Your task to perform on an android device: turn notification dots on Image 0: 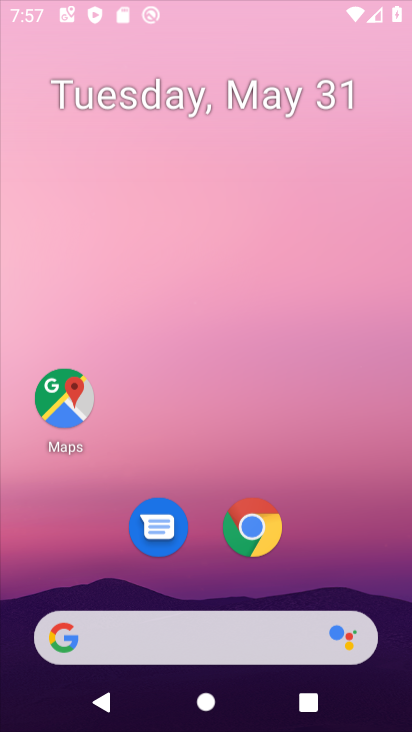
Step 0: click (238, 131)
Your task to perform on an android device: turn notification dots on Image 1: 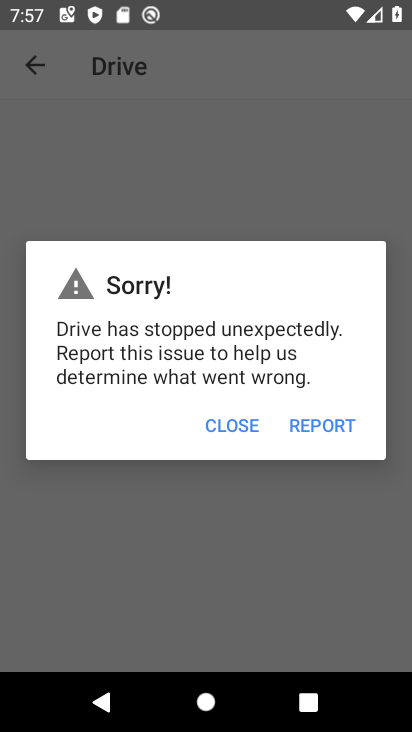
Step 1: press home button
Your task to perform on an android device: turn notification dots on Image 2: 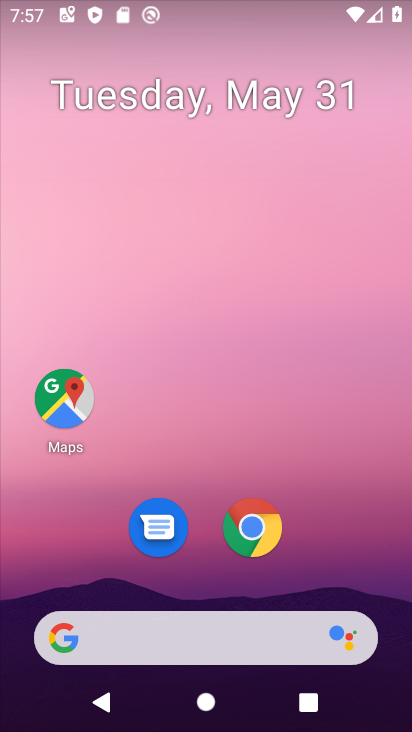
Step 2: drag from (335, 475) to (262, 44)
Your task to perform on an android device: turn notification dots on Image 3: 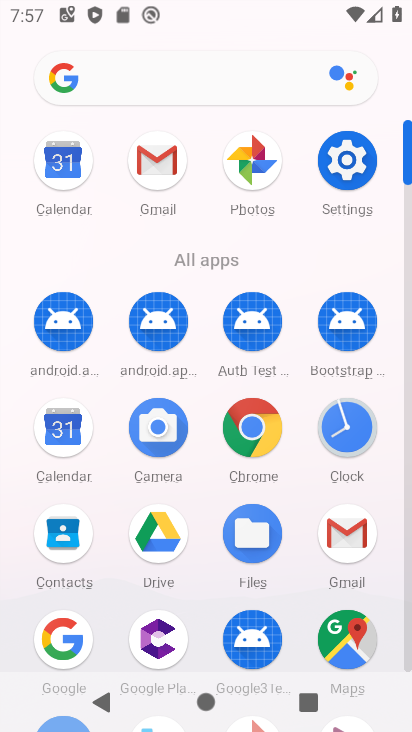
Step 3: click (339, 159)
Your task to perform on an android device: turn notification dots on Image 4: 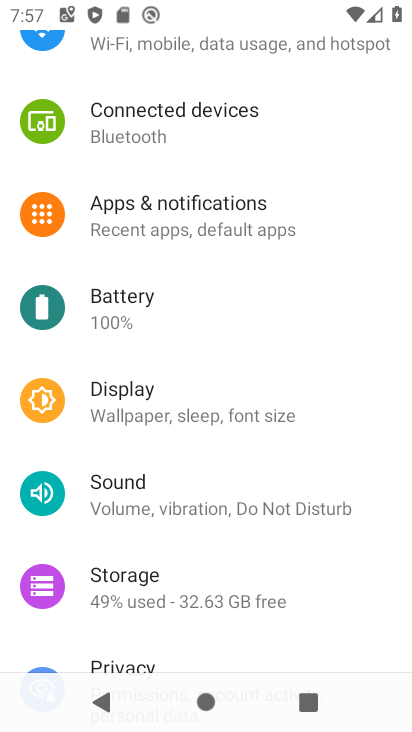
Step 4: click (180, 206)
Your task to perform on an android device: turn notification dots on Image 5: 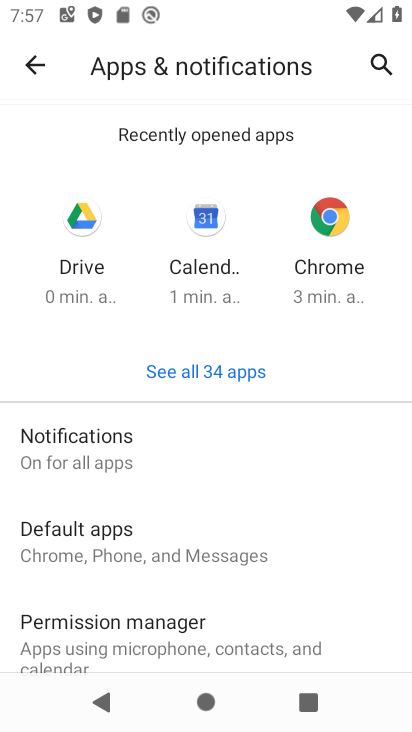
Step 5: click (94, 429)
Your task to perform on an android device: turn notification dots on Image 6: 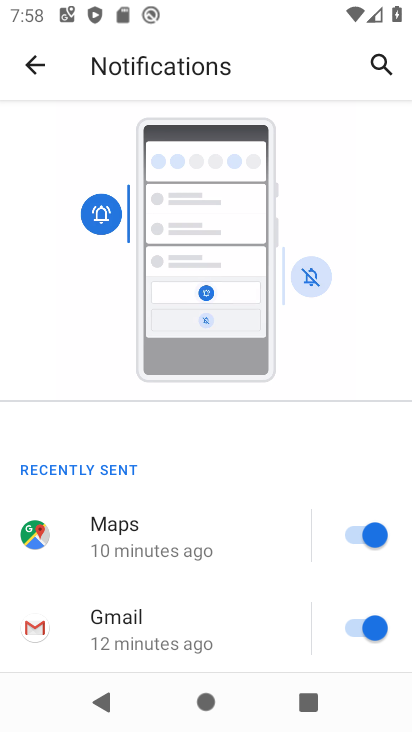
Step 6: click (268, 235)
Your task to perform on an android device: turn notification dots on Image 7: 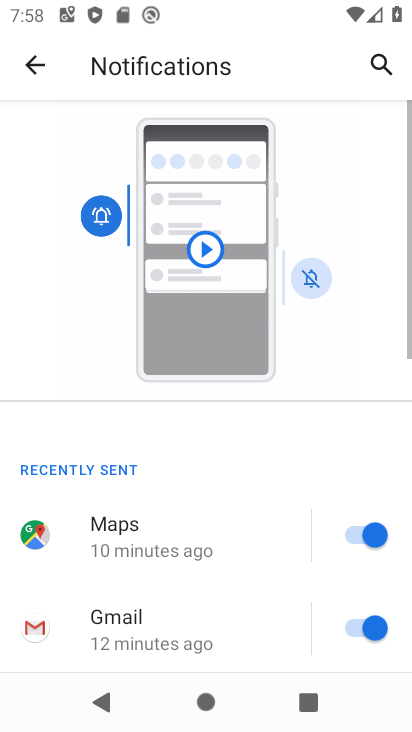
Step 7: drag from (240, 494) to (233, 268)
Your task to perform on an android device: turn notification dots on Image 8: 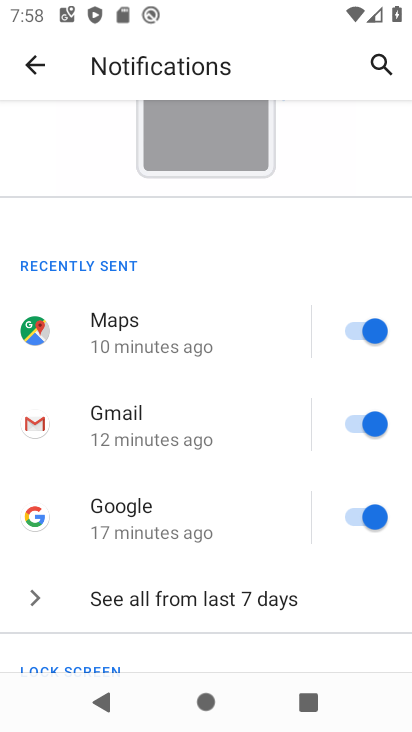
Step 8: drag from (261, 567) to (256, 294)
Your task to perform on an android device: turn notification dots on Image 9: 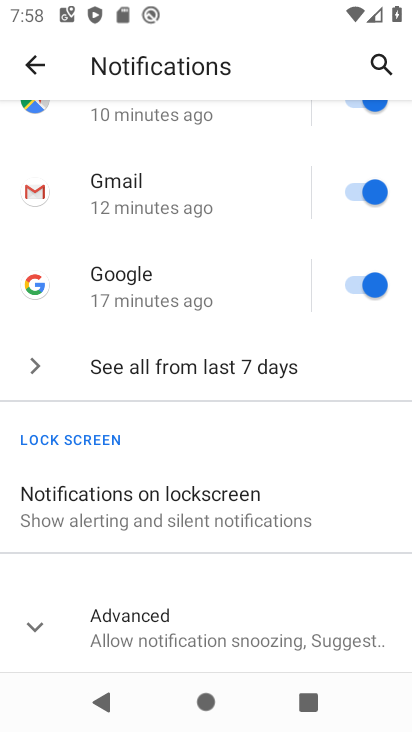
Step 9: click (34, 626)
Your task to perform on an android device: turn notification dots on Image 10: 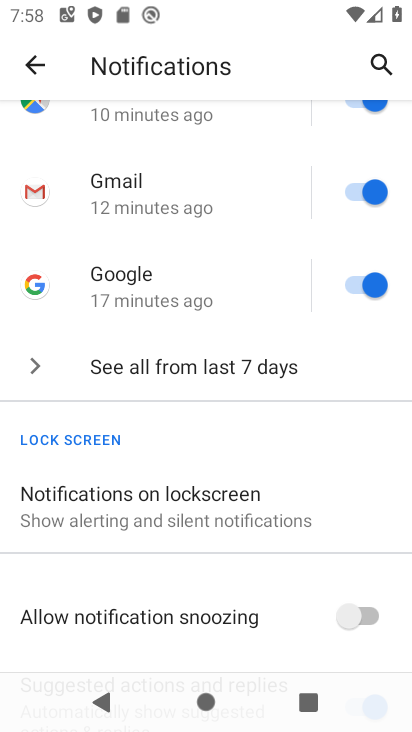
Step 10: task complete